Your task to perform on an android device: star an email in the gmail app Image 0: 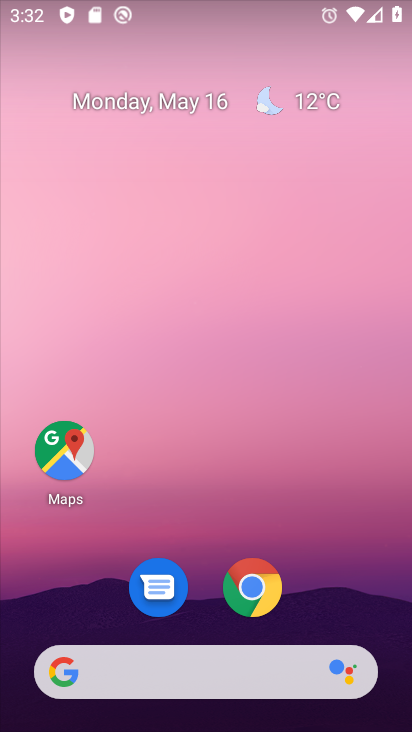
Step 0: drag from (390, 658) to (376, 246)
Your task to perform on an android device: star an email in the gmail app Image 1: 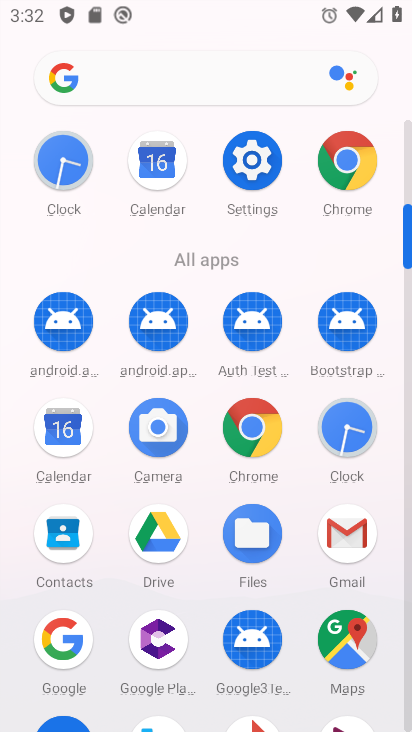
Step 1: click (347, 542)
Your task to perform on an android device: star an email in the gmail app Image 2: 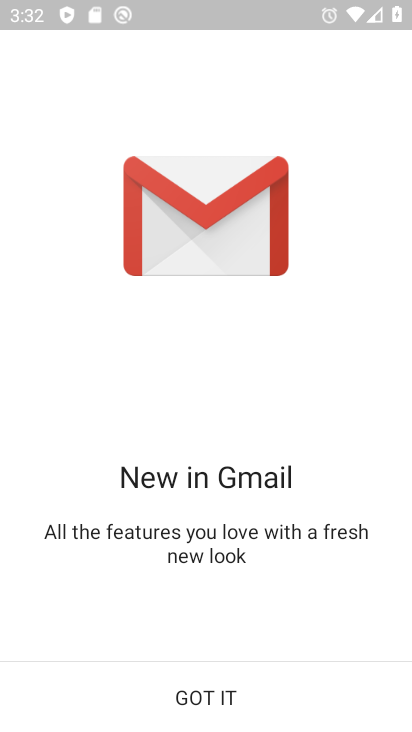
Step 2: click (228, 697)
Your task to perform on an android device: star an email in the gmail app Image 3: 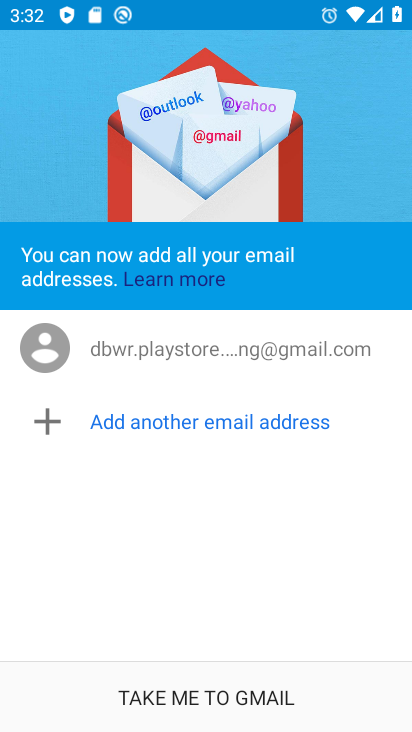
Step 3: click (270, 690)
Your task to perform on an android device: star an email in the gmail app Image 4: 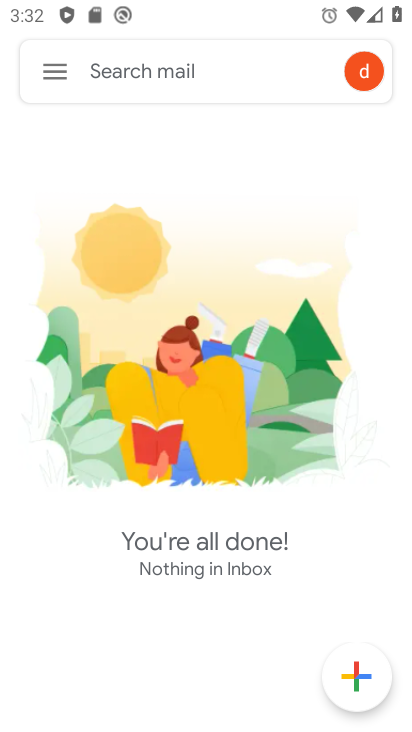
Step 4: click (62, 72)
Your task to perform on an android device: star an email in the gmail app Image 5: 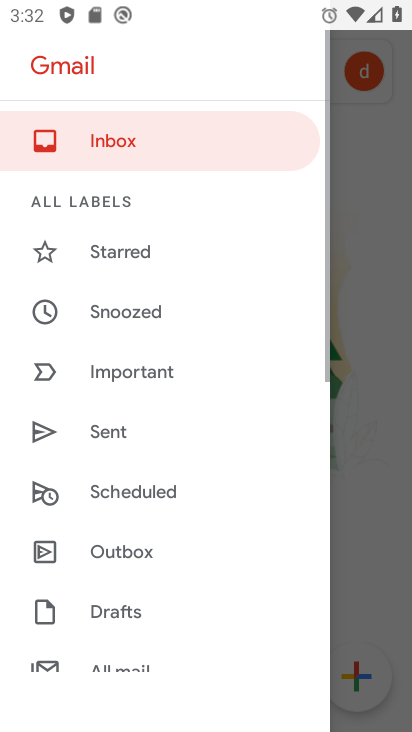
Step 5: click (88, 128)
Your task to perform on an android device: star an email in the gmail app Image 6: 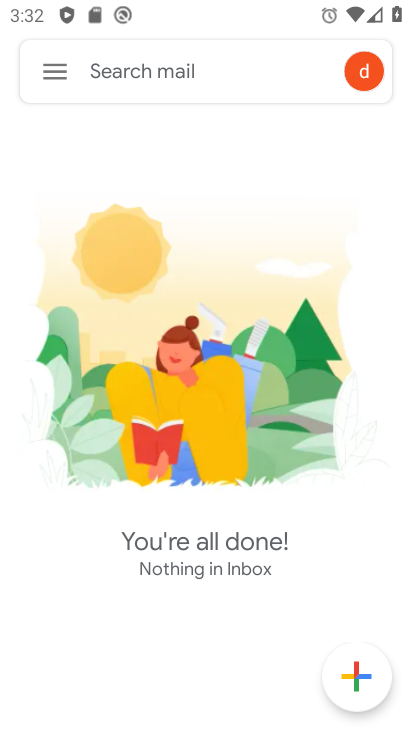
Step 6: task complete